Your task to perform on an android device: Go to wifi settings Image 0: 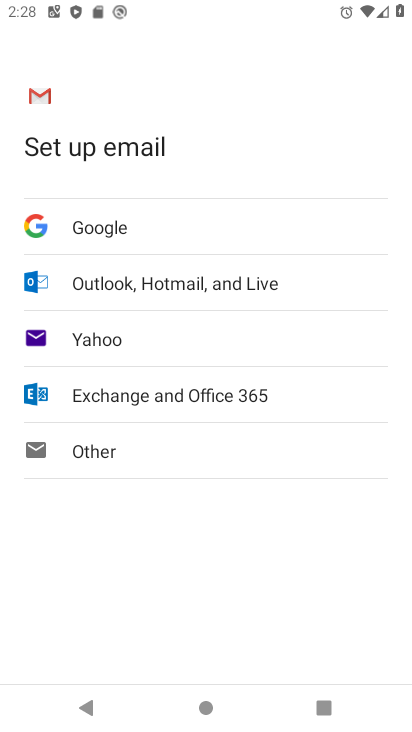
Step 0: press home button
Your task to perform on an android device: Go to wifi settings Image 1: 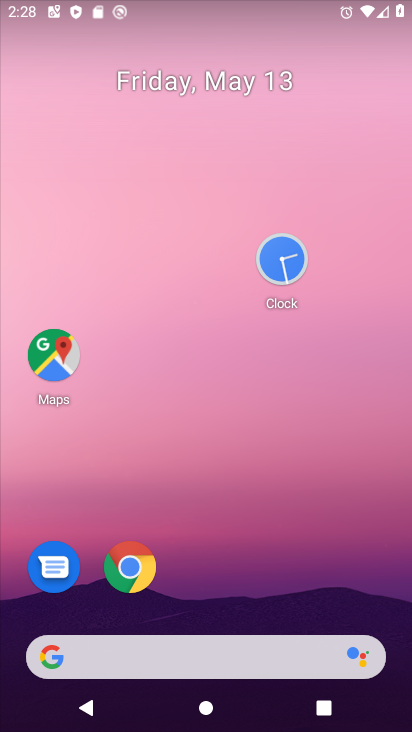
Step 1: drag from (230, 566) to (242, 156)
Your task to perform on an android device: Go to wifi settings Image 2: 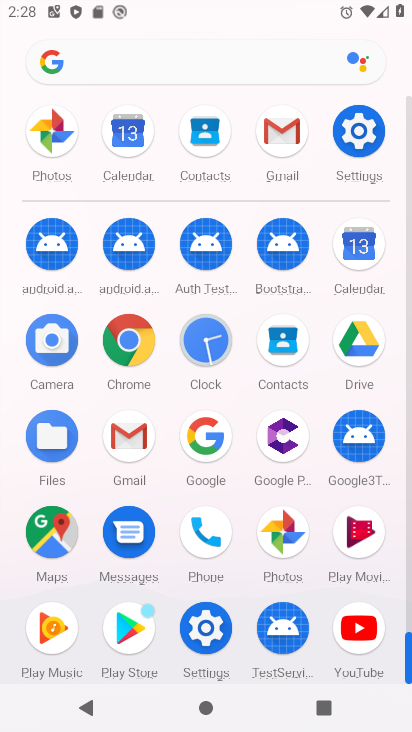
Step 2: click (378, 145)
Your task to perform on an android device: Go to wifi settings Image 3: 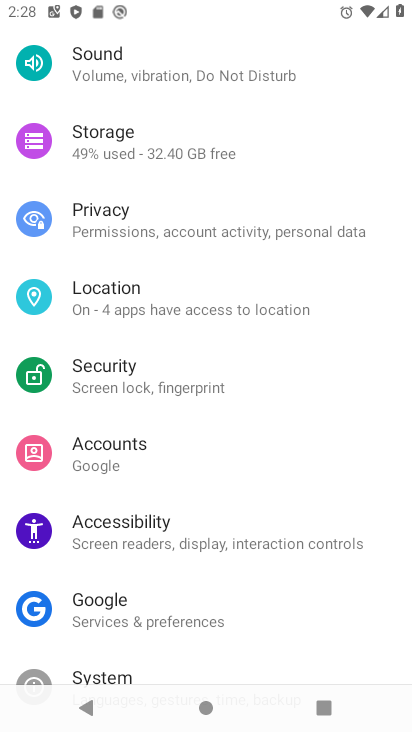
Step 3: drag from (233, 182) to (206, 715)
Your task to perform on an android device: Go to wifi settings Image 4: 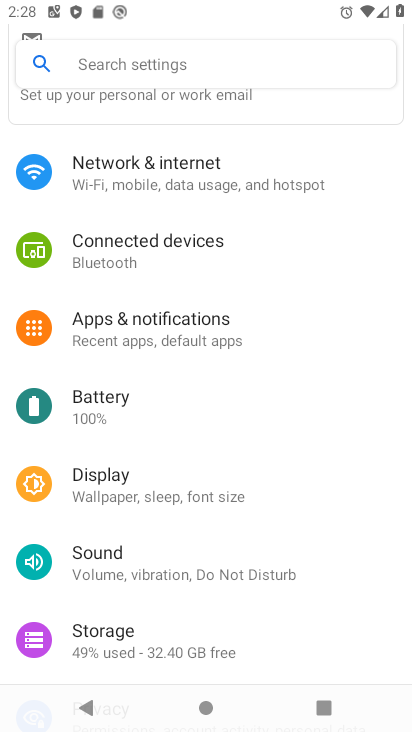
Step 4: click (236, 183)
Your task to perform on an android device: Go to wifi settings Image 5: 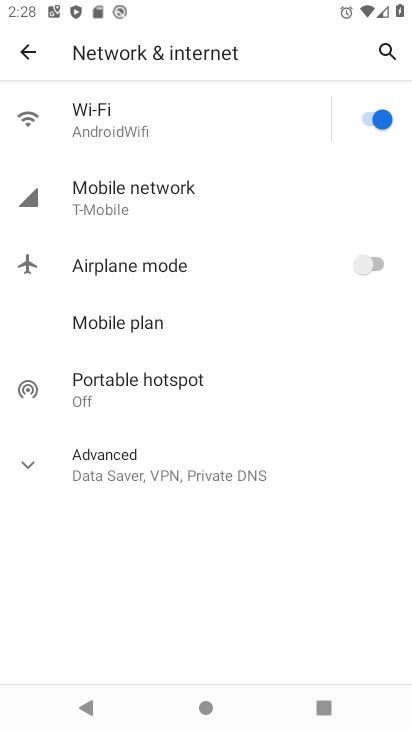
Step 5: click (237, 117)
Your task to perform on an android device: Go to wifi settings Image 6: 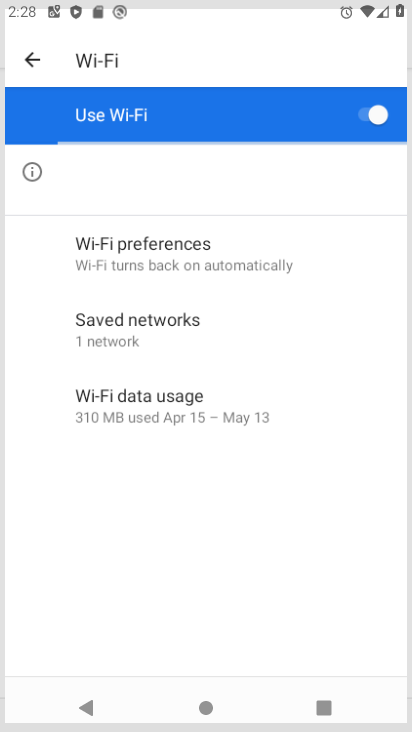
Step 6: task complete